Your task to perform on an android device: Open wifi settings Image 0: 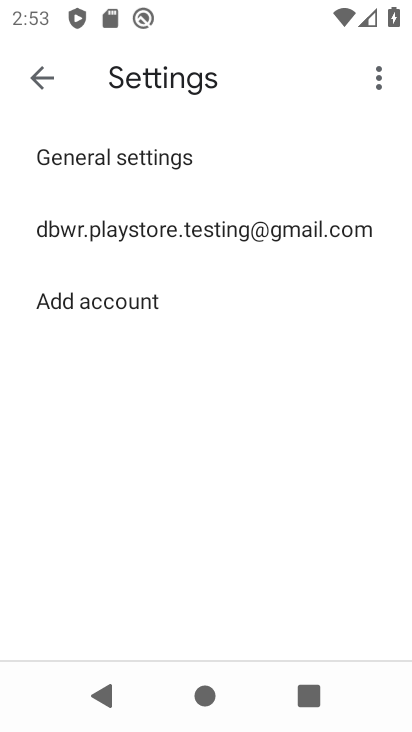
Step 0: press home button
Your task to perform on an android device: Open wifi settings Image 1: 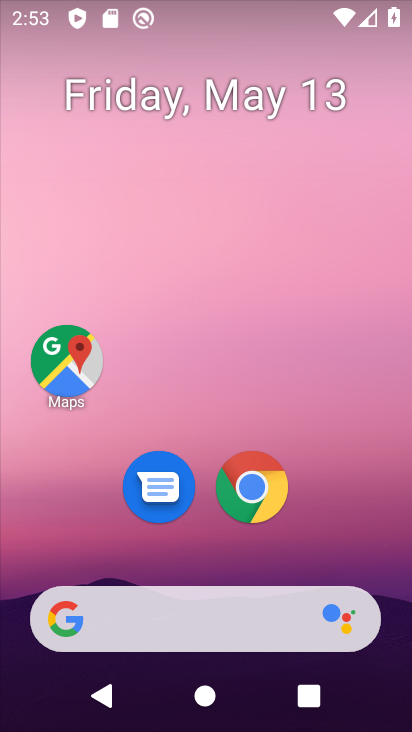
Step 1: drag from (376, 490) to (355, 74)
Your task to perform on an android device: Open wifi settings Image 2: 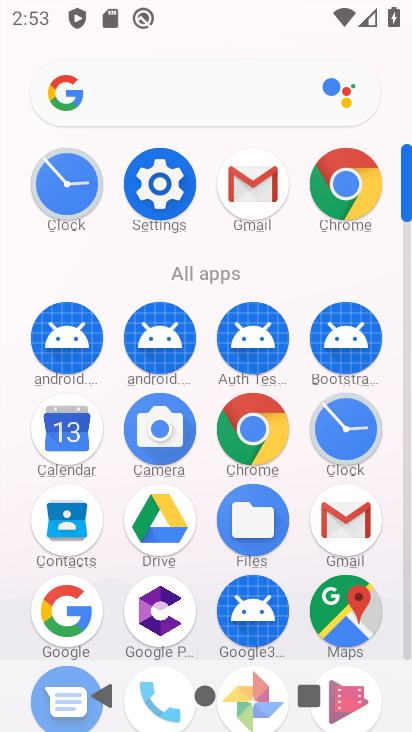
Step 2: click (144, 189)
Your task to perform on an android device: Open wifi settings Image 3: 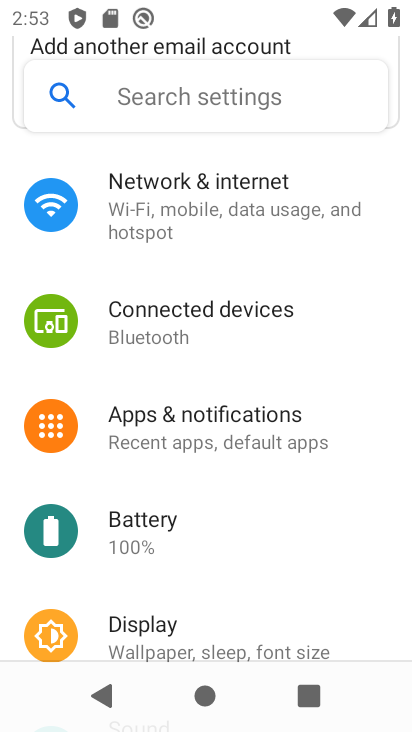
Step 3: click (146, 181)
Your task to perform on an android device: Open wifi settings Image 4: 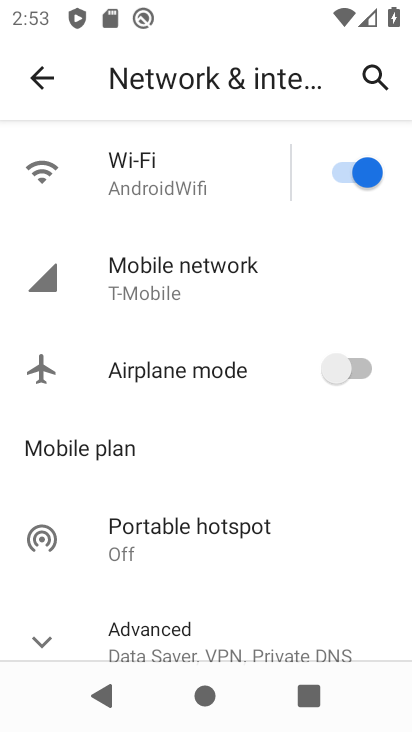
Step 4: click (146, 181)
Your task to perform on an android device: Open wifi settings Image 5: 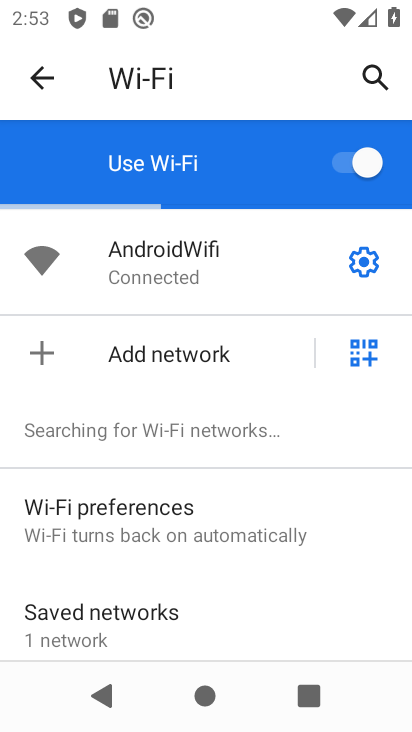
Step 5: task complete